Your task to perform on an android device: set default search engine in the chrome app Image 0: 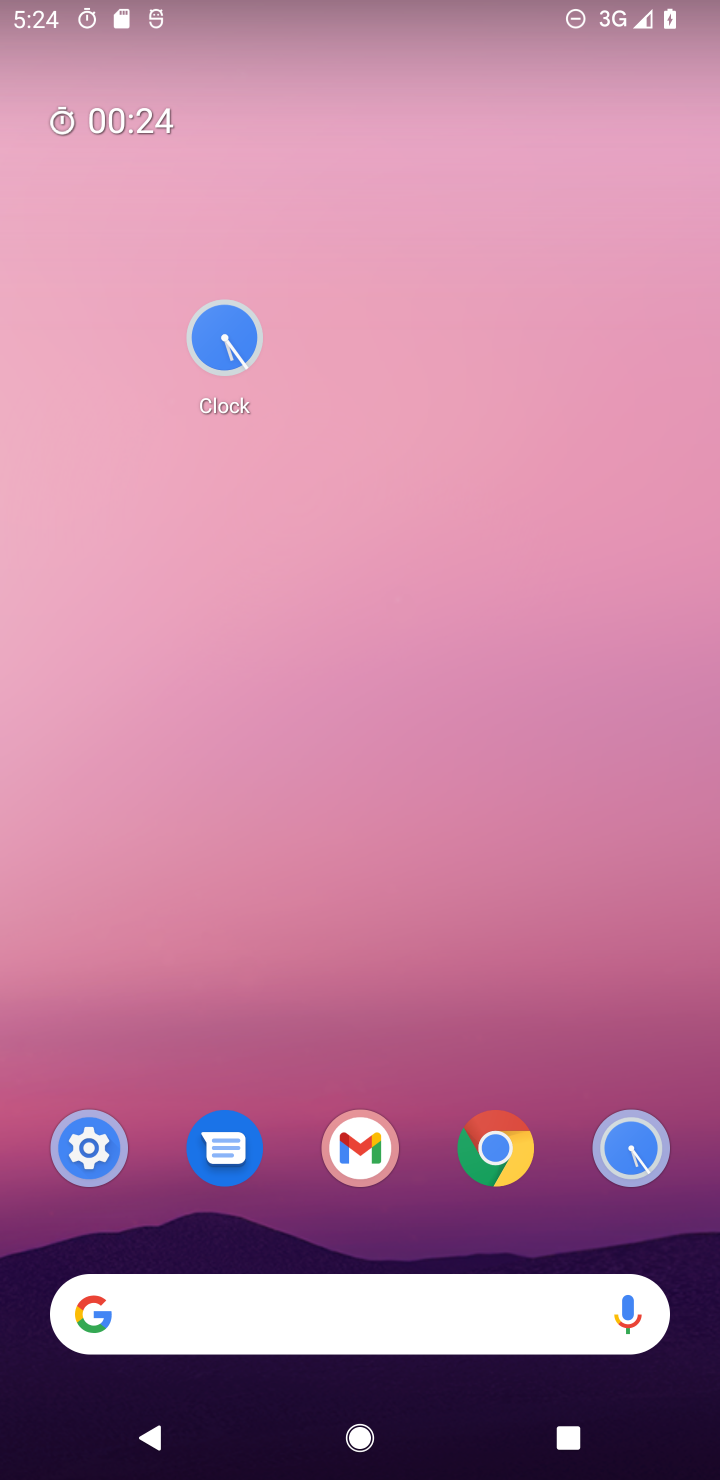
Step 0: drag from (289, 1218) to (431, 613)
Your task to perform on an android device: set default search engine in the chrome app Image 1: 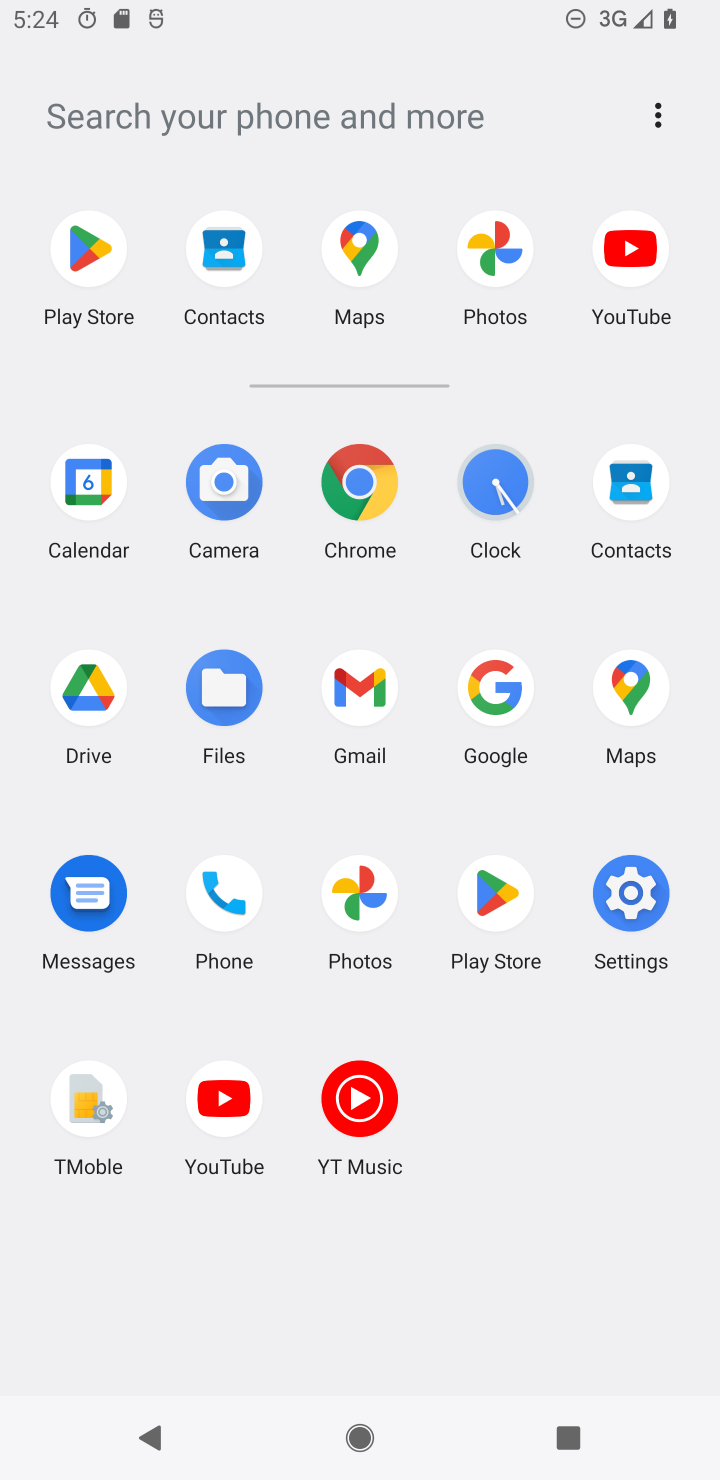
Step 1: click (367, 499)
Your task to perform on an android device: set default search engine in the chrome app Image 2: 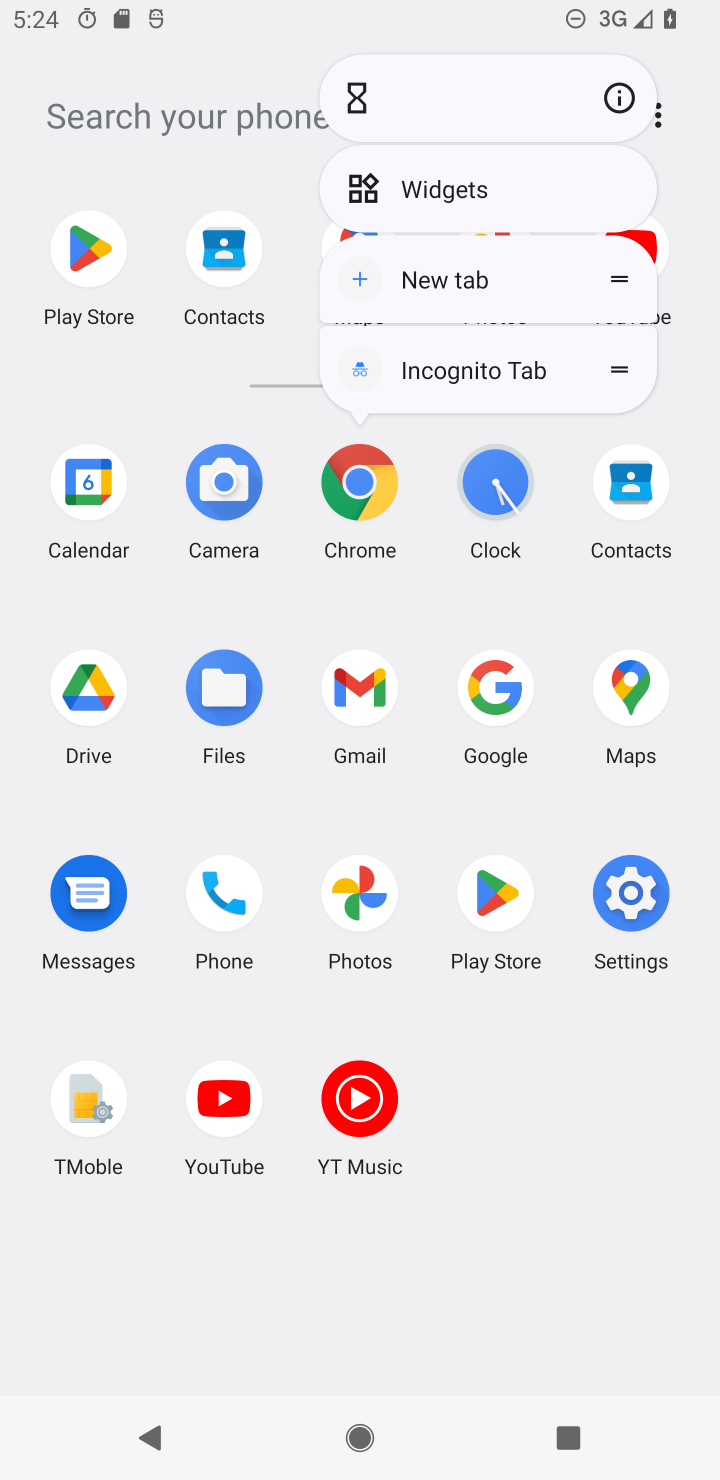
Step 2: click (358, 488)
Your task to perform on an android device: set default search engine in the chrome app Image 3: 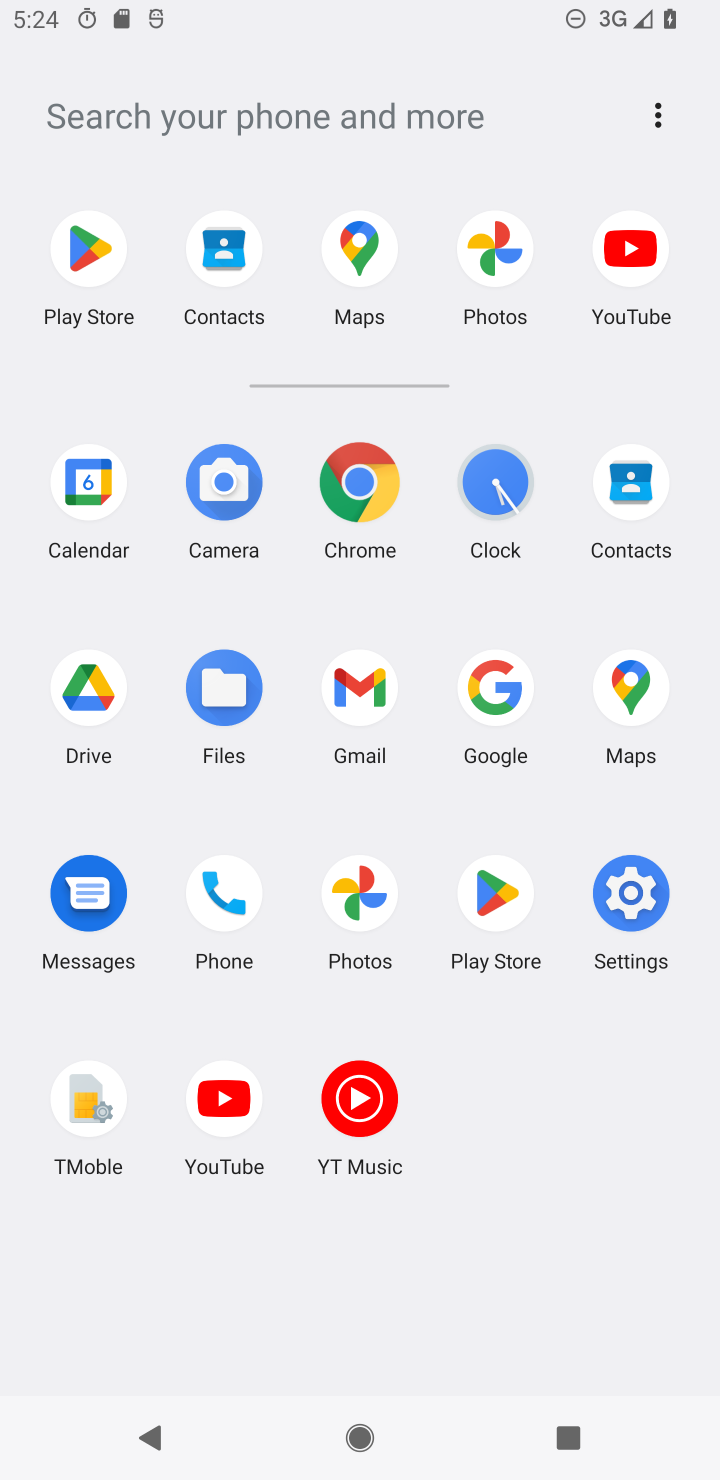
Step 3: click (368, 502)
Your task to perform on an android device: set default search engine in the chrome app Image 4: 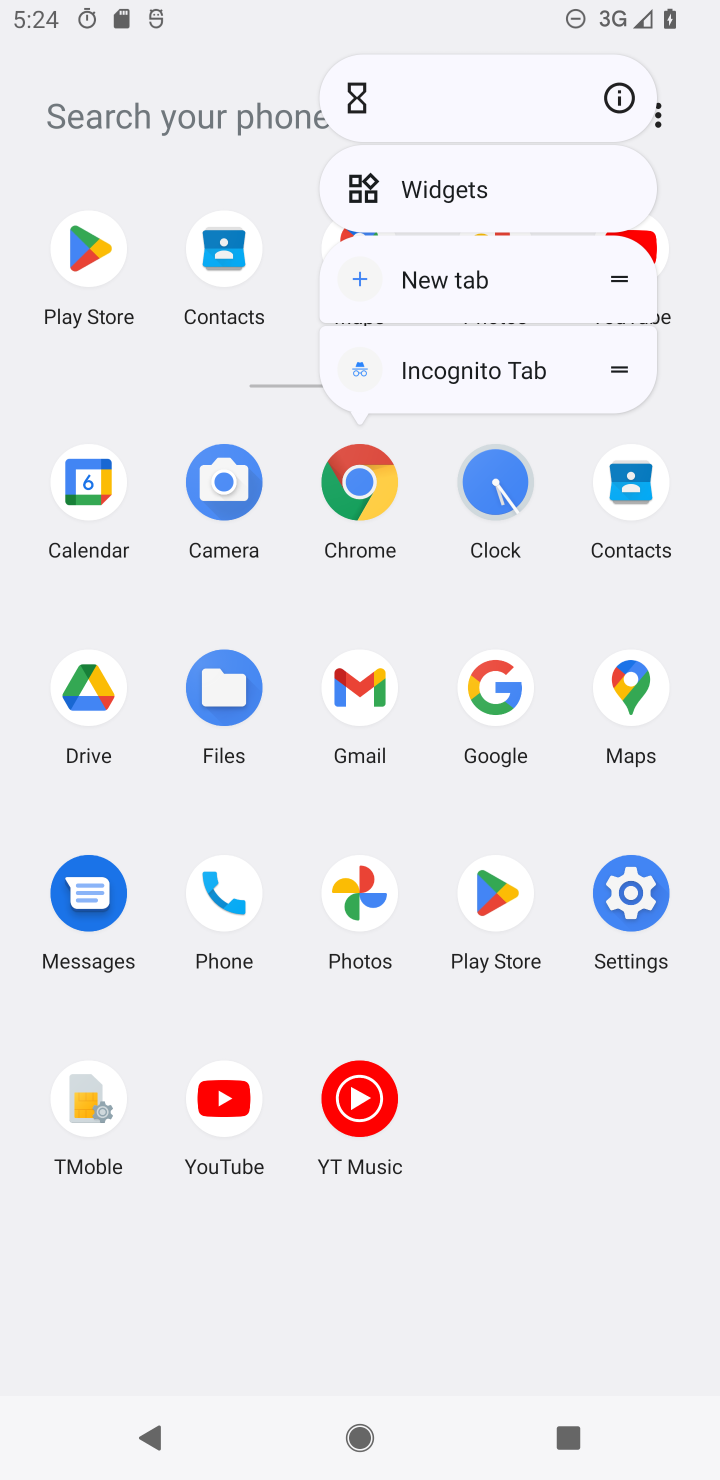
Step 4: click (374, 513)
Your task to perform on an android device: set default search engine in the chrome app Image 5: 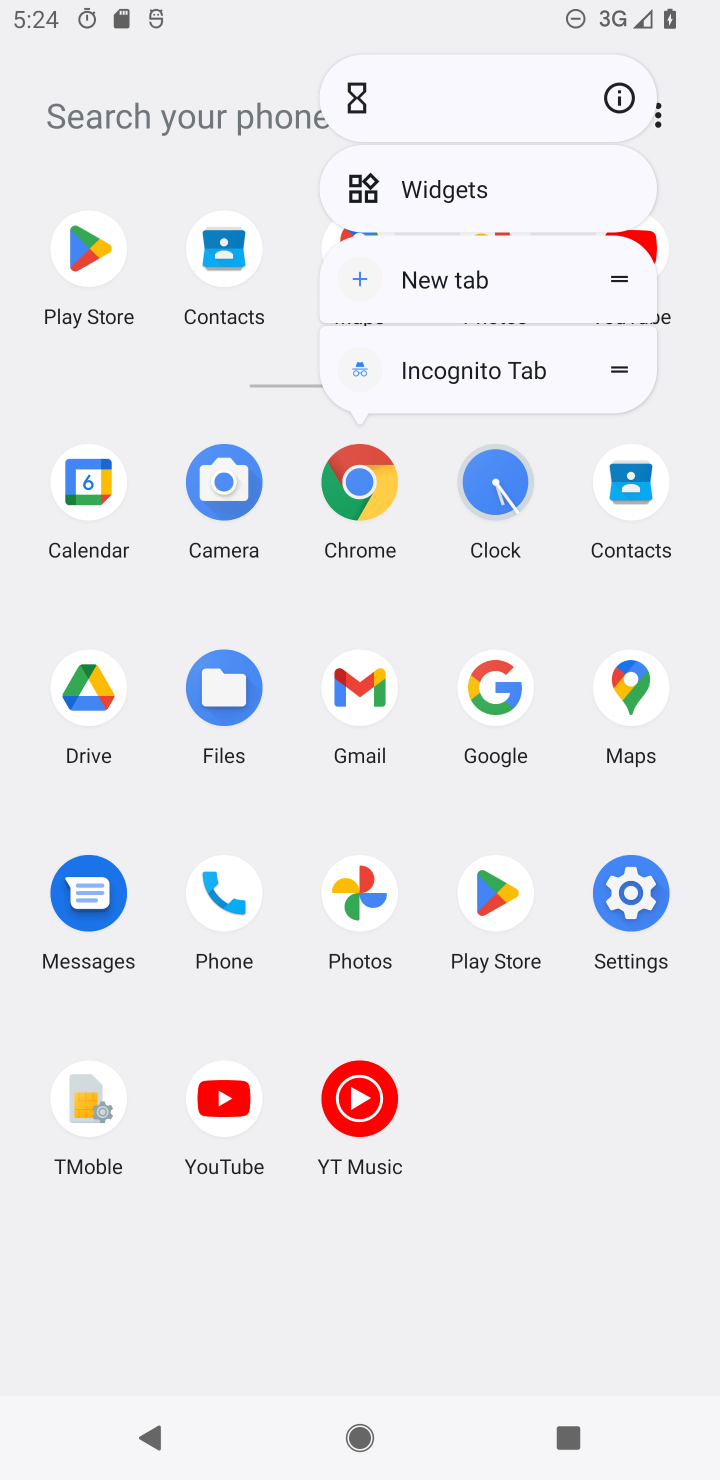
Step 5: click (622, 91)
Your task to perform on an android device: set default search engine in the chrome app Image 6: 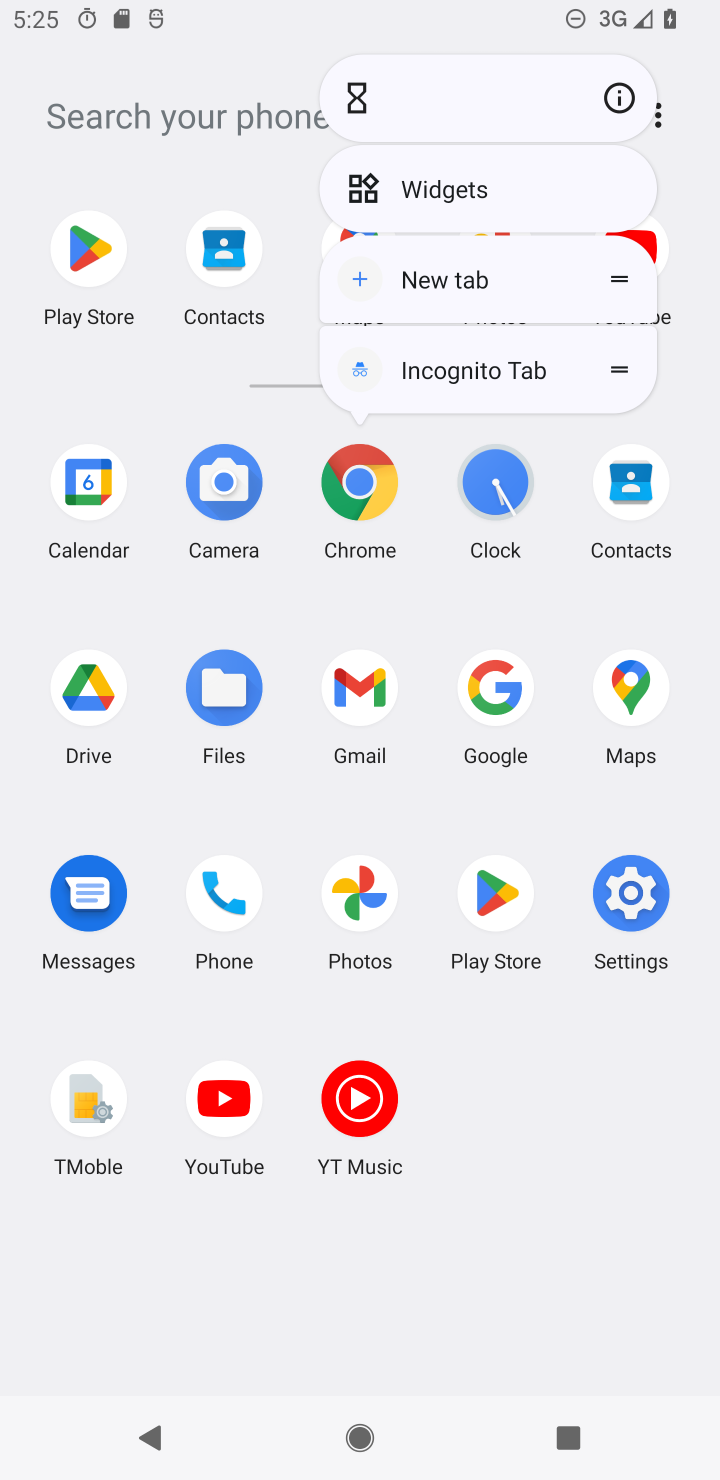
Step 6: click (627, 97)
Your task to perform on an android device: set default search engine in the chrome app Image 7: 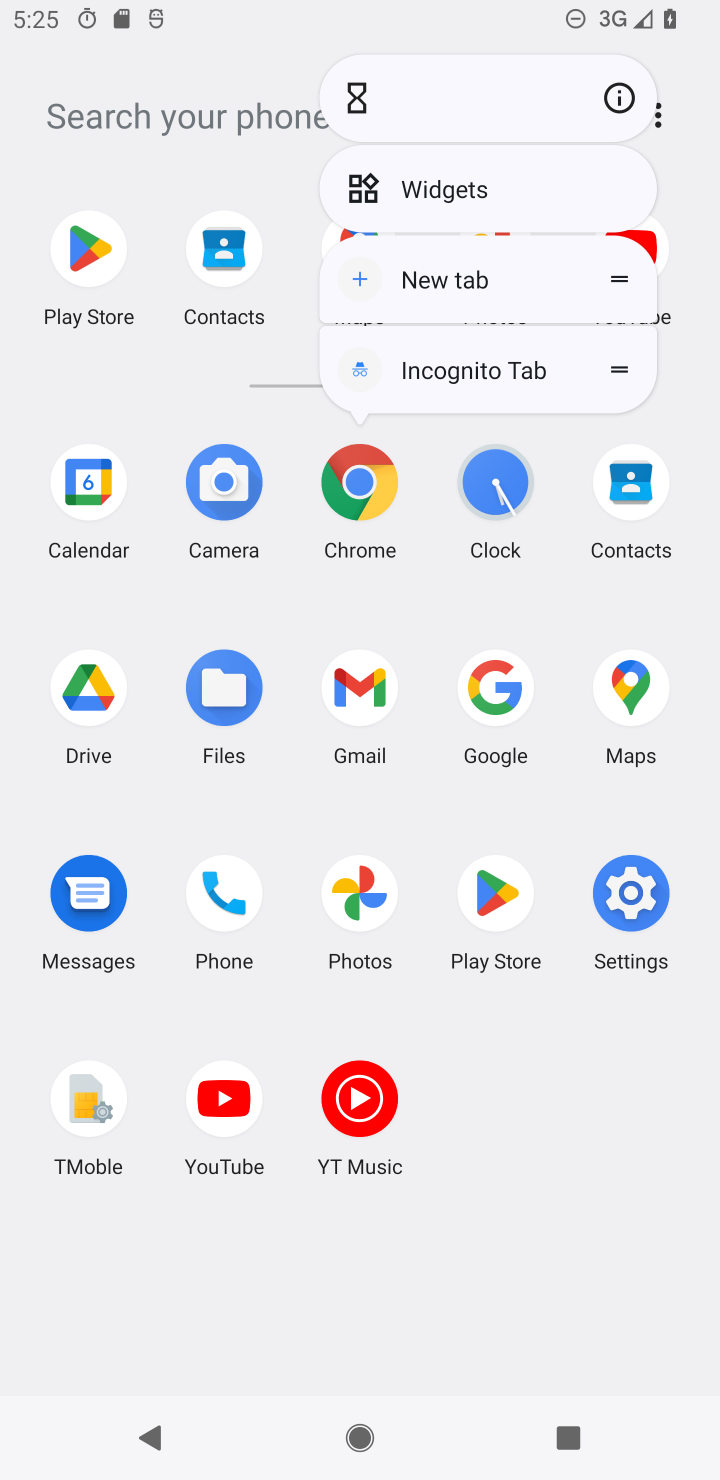
Step 7: click (351, 509)
Your task to perform on an android device: set default search engine in the chrome app Image 8: 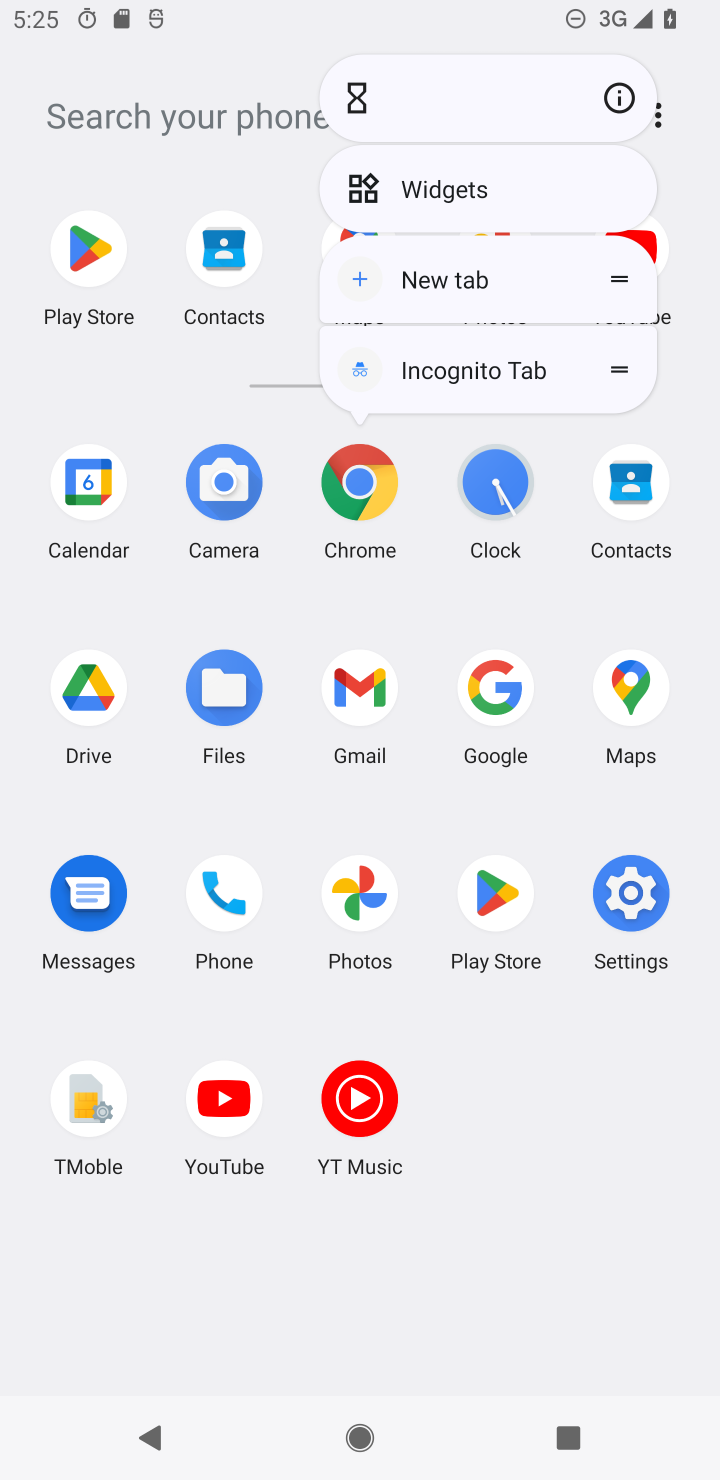
Step 8: click (351, 503)
Your task to perform on an android device: set default search engine in the chrome app Image 9: 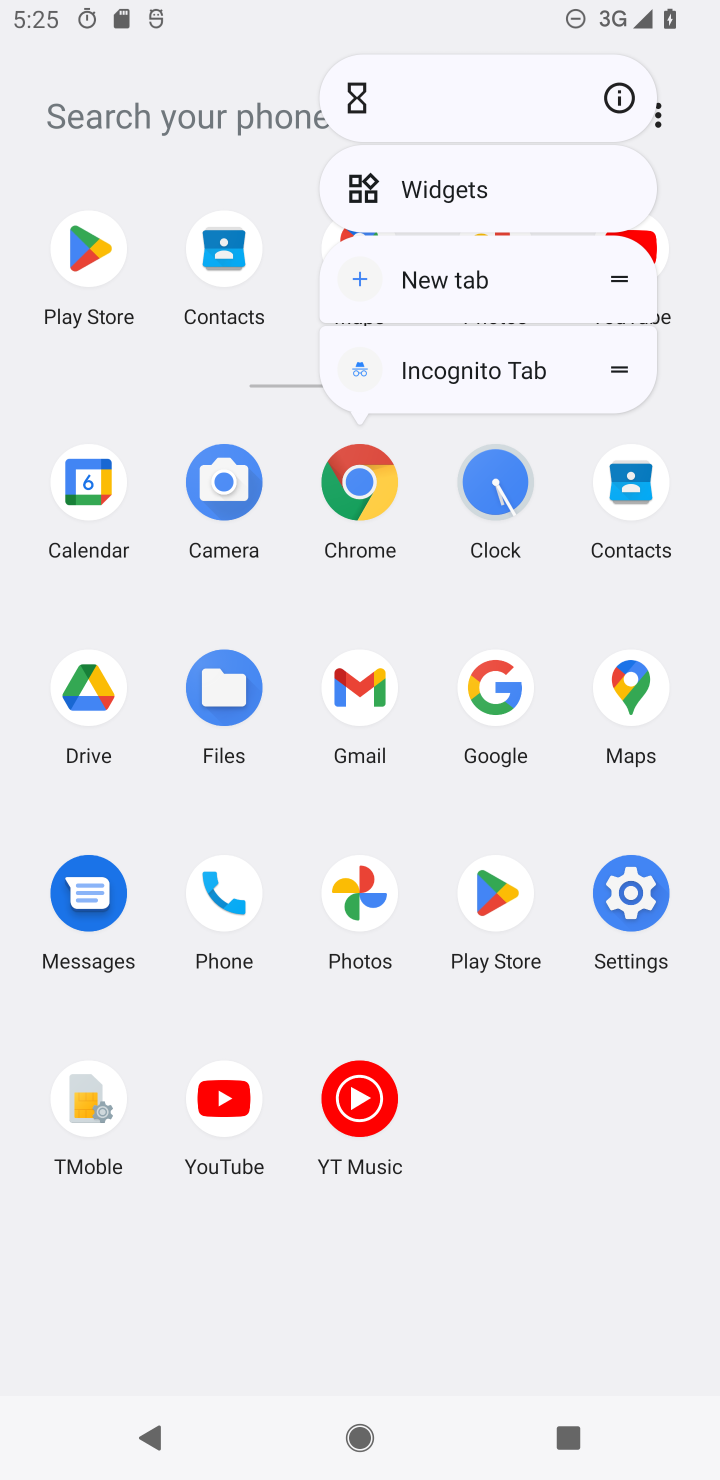
Step 9: click (347, 499)
Your task to perform on an android device: set default search engine in the chrome app Image 10: 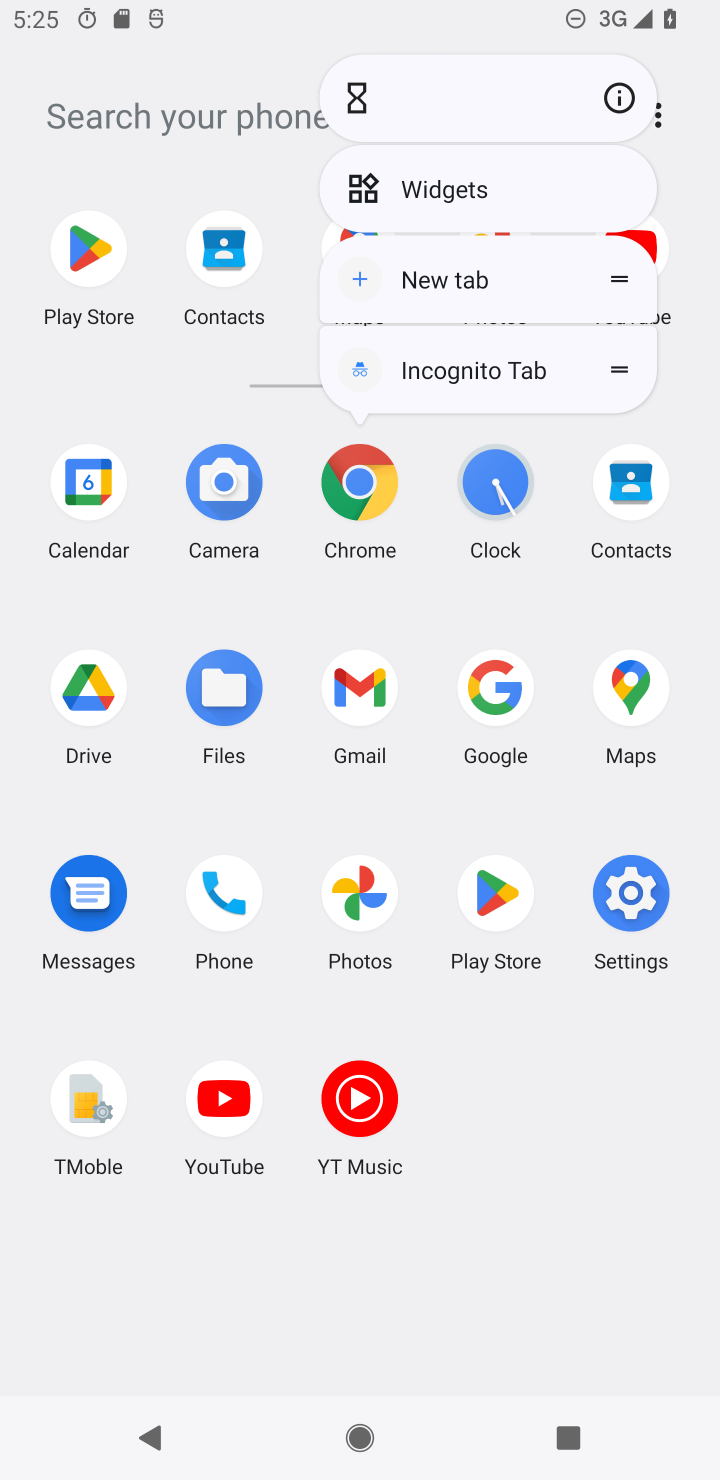
Step 10: click (343, 499)
Your task to perform on an android device: set default search engine in the chrome app Image 11: 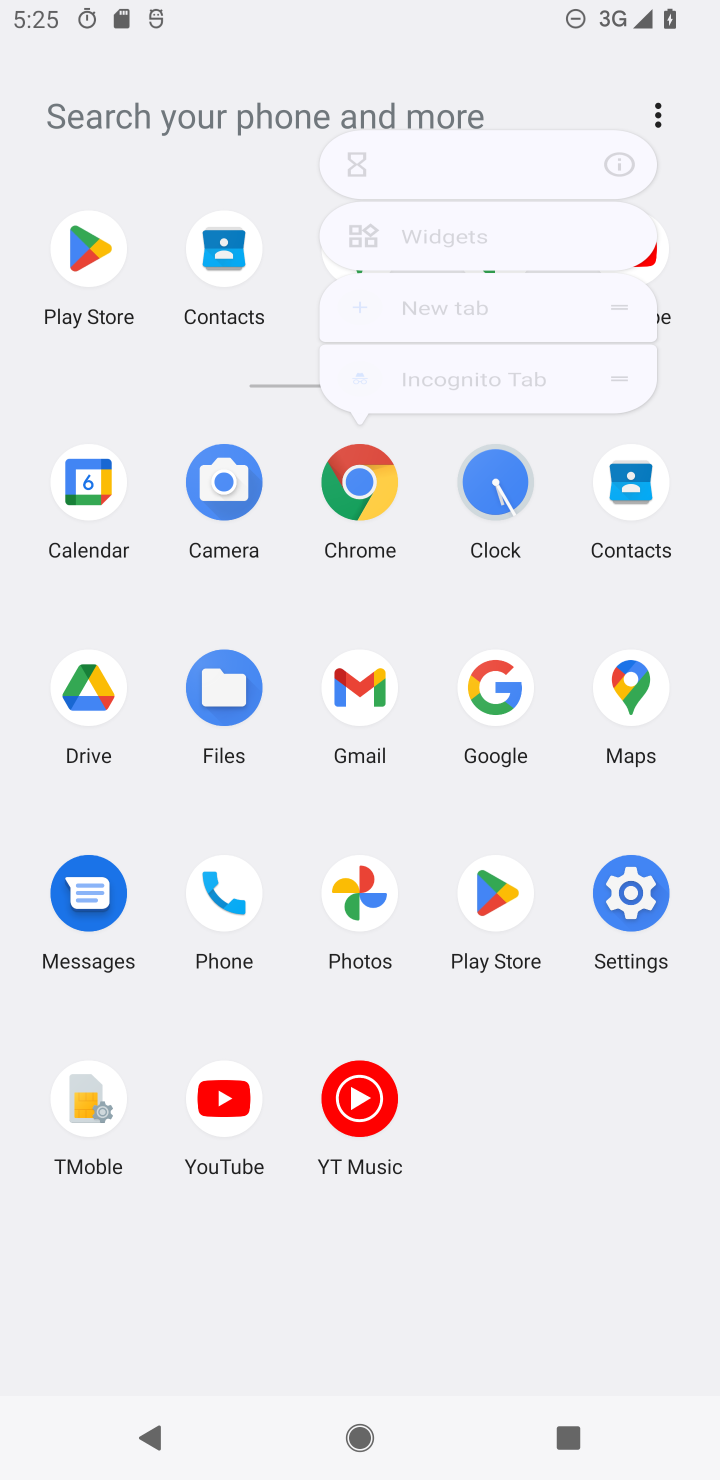
Step 11: click (343, 499)
Your task to perform on an android device: set default search engine in the chrome app Image 12: 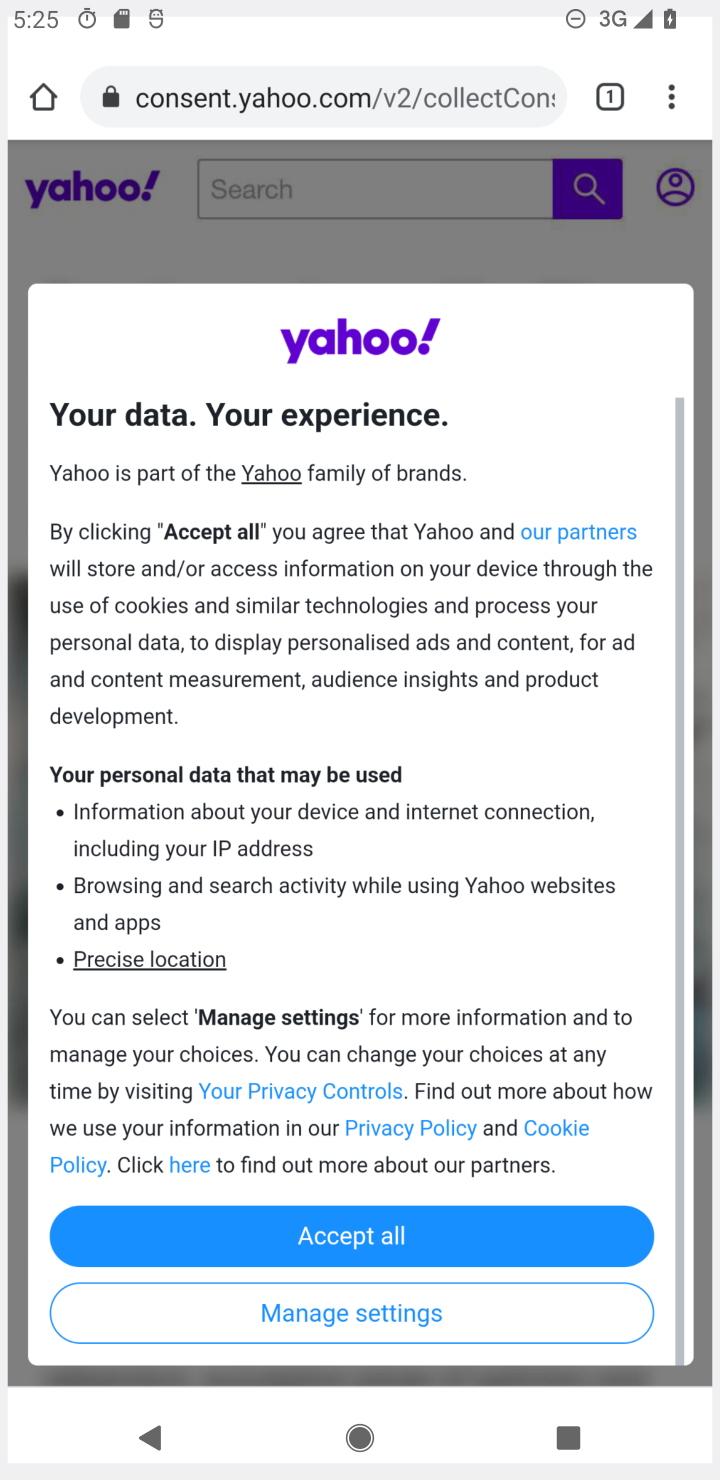
Step 12: click (338, 494)
Your task to perform on an android device: set default search engine in the chrome app Image 13: 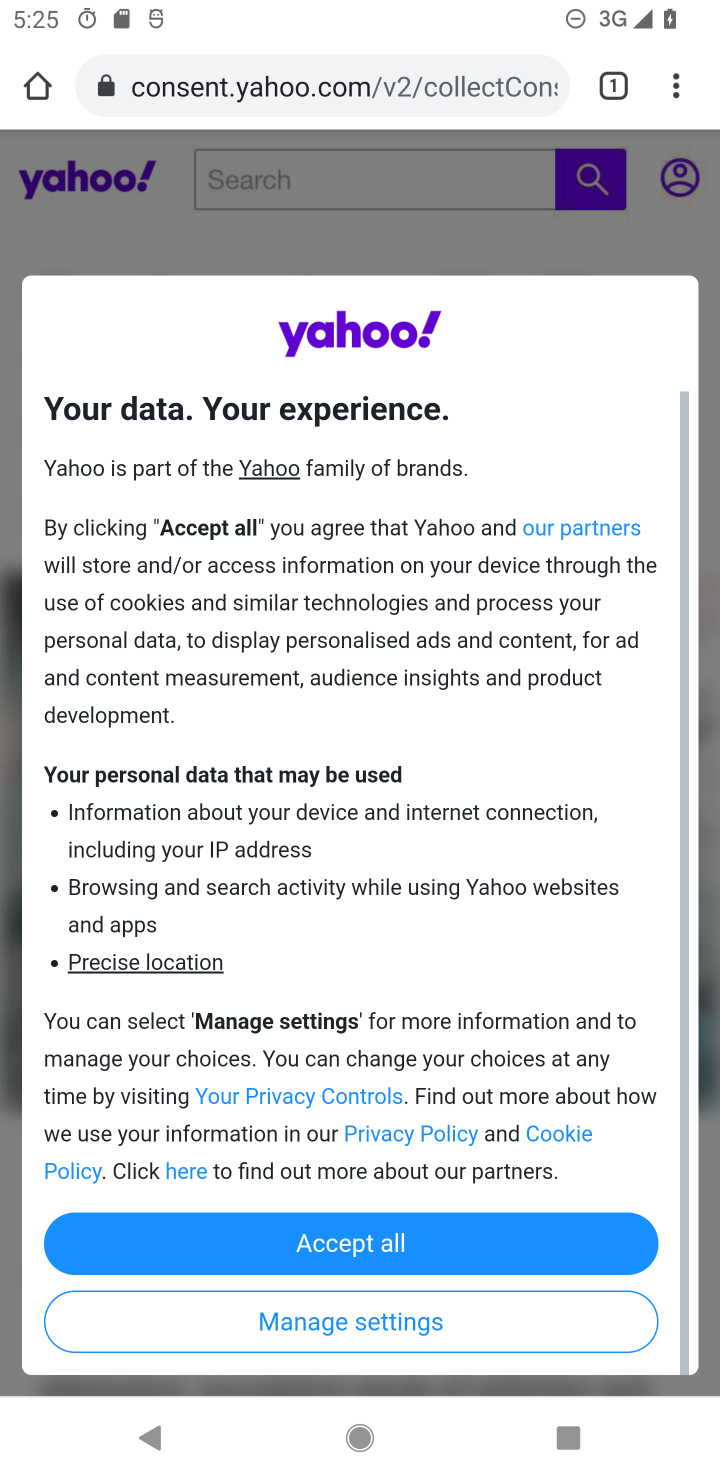
Step 13: drag from (638, 207) to (533, 756)
Your task to perform on an android device: set default search engine in the chrome app Image 14: 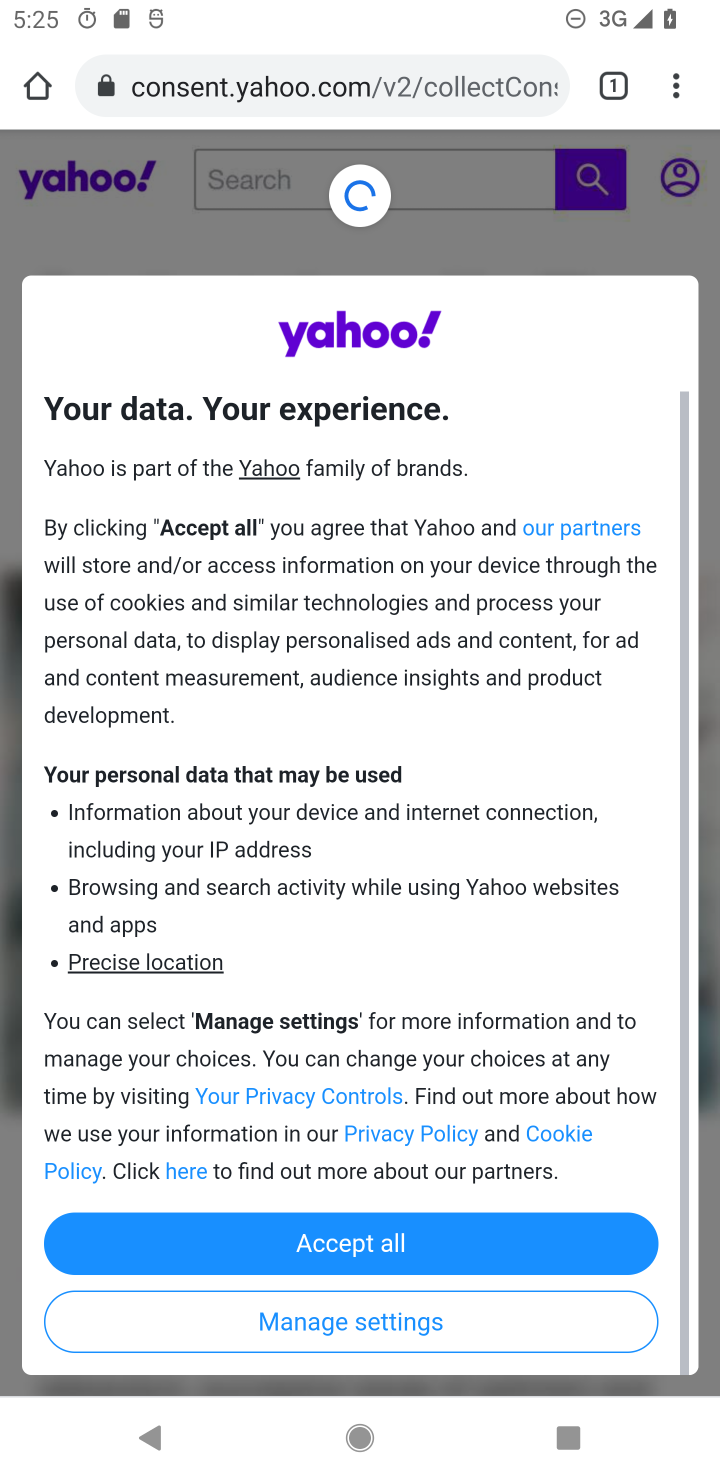
Step 14: drag from (678, 82) to (365, 1139)
Your task to perform on an android device: set default search engine in the chrome app Image 15: 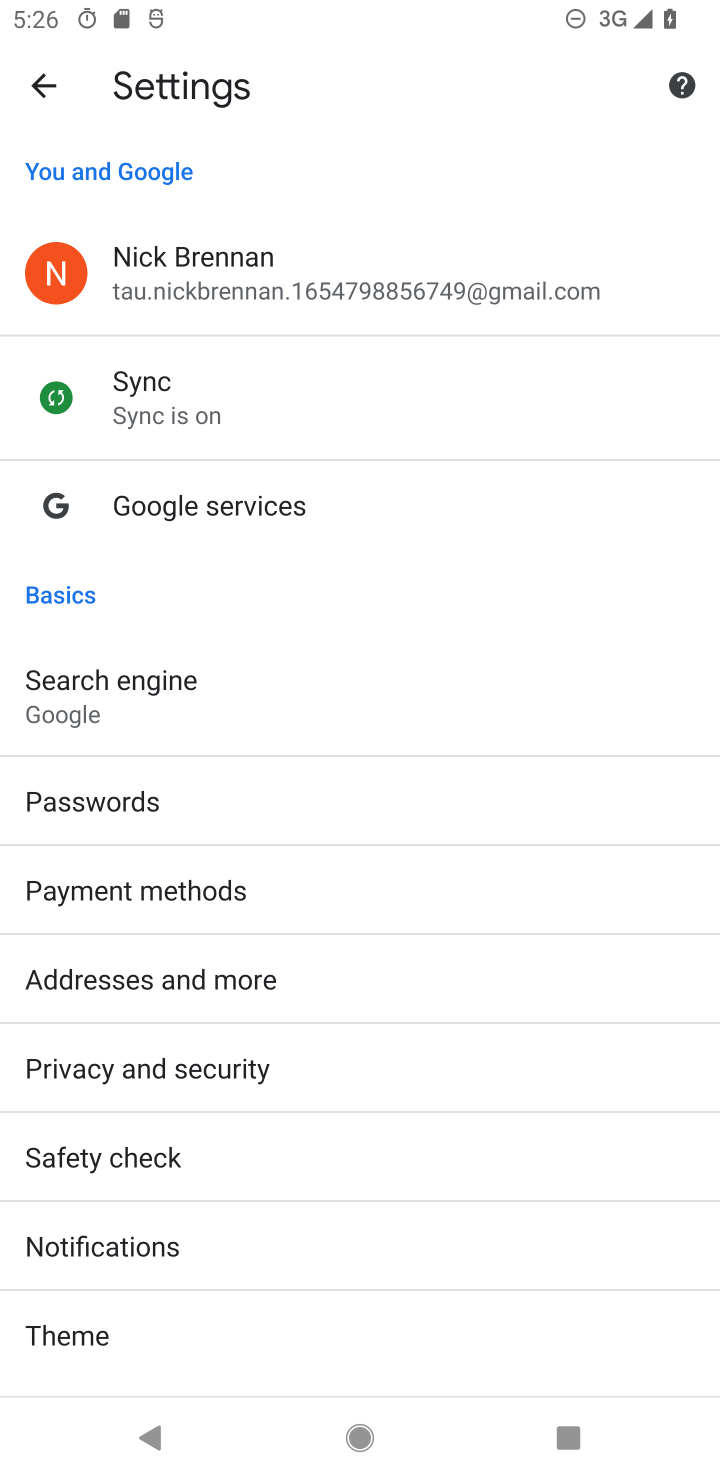
Step 15: drag from (236, 1248) to (357, 749)
Your task to perform on an android device: set default search engine in the chrome app Image 16: 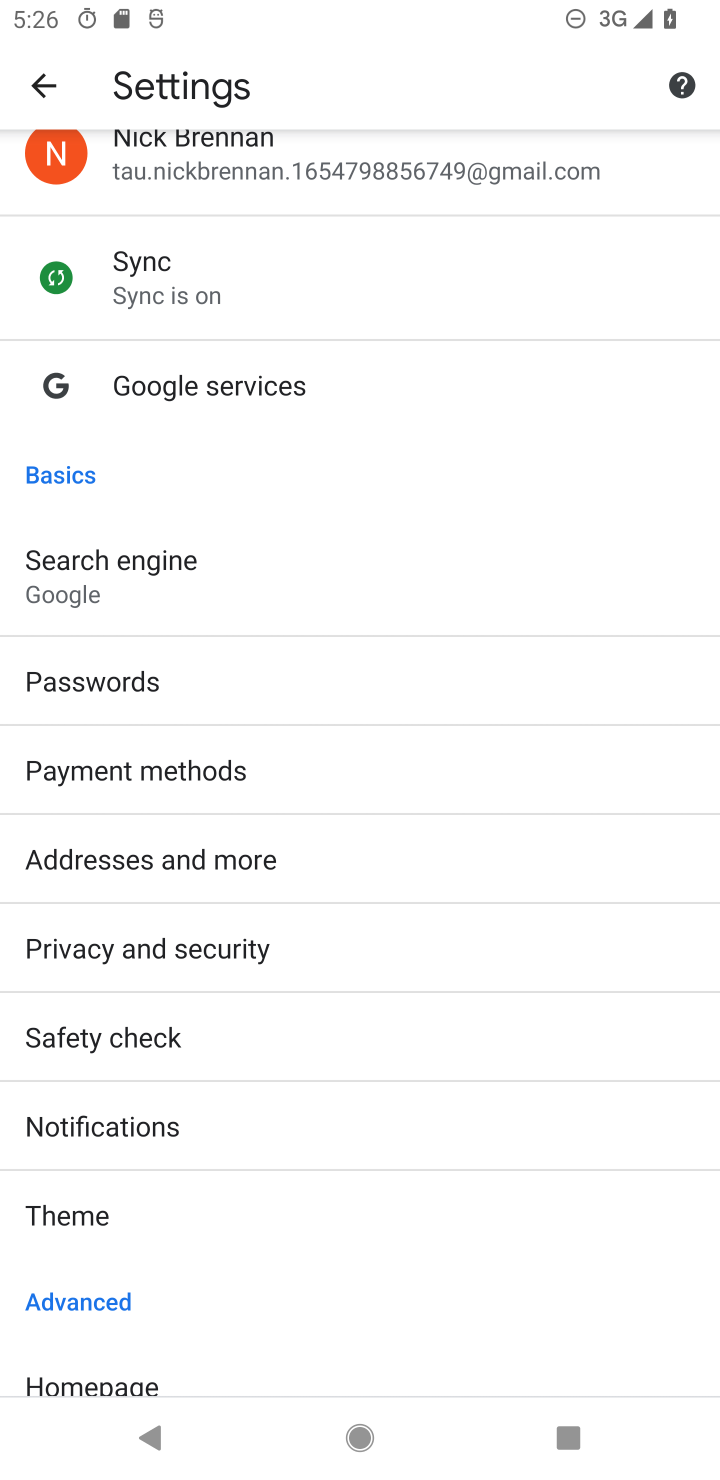
Step 16: click (207, 571)
Your task to perform on an android device: set default search engine in the chrome app Image 17: 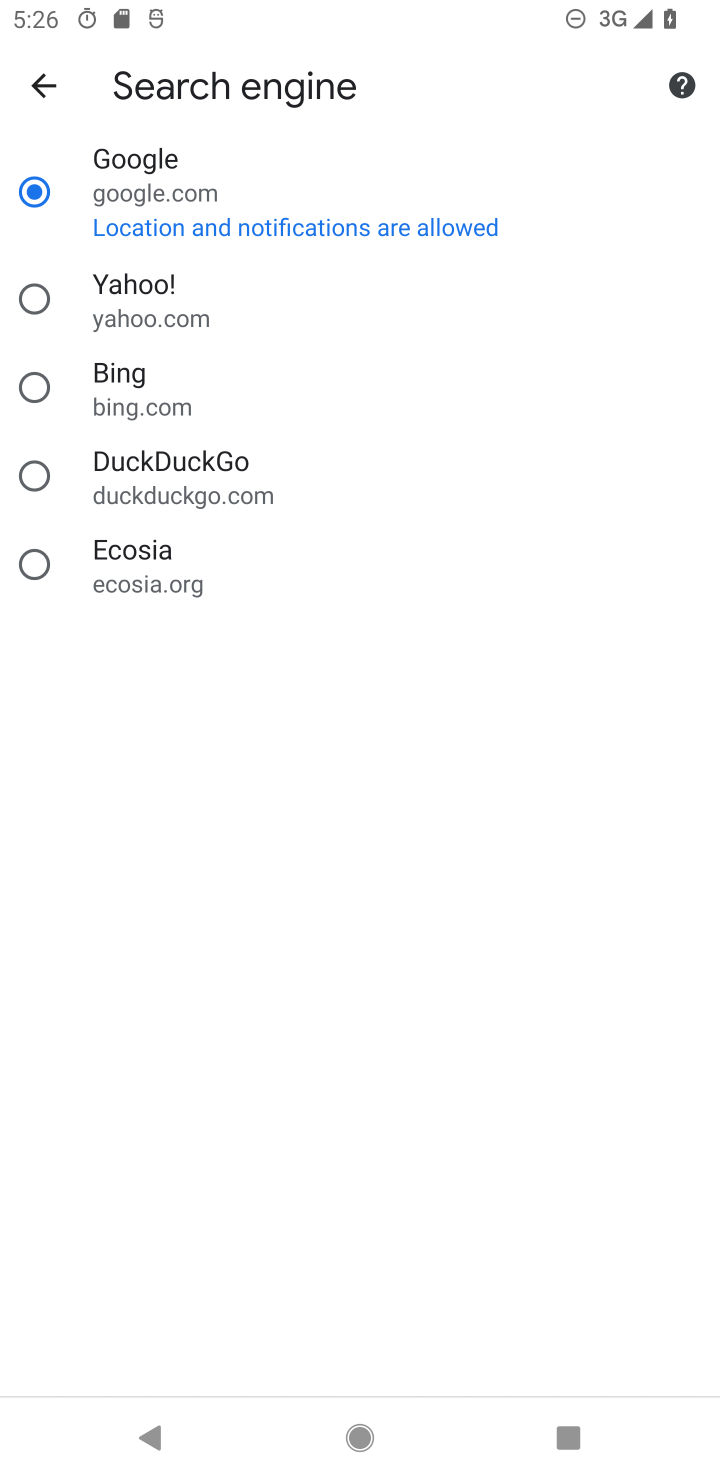
Step 17: task complete